Your task to perform on an android device: turn on location history Image 0: 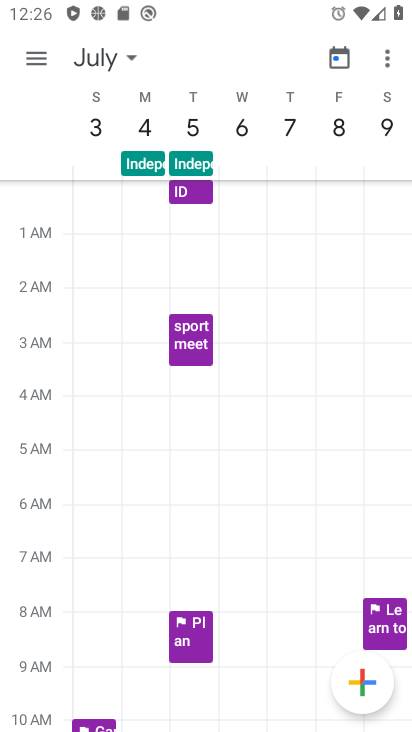
Step 0: press home button
Your task to perform on an android device: turn on location history Image 1: 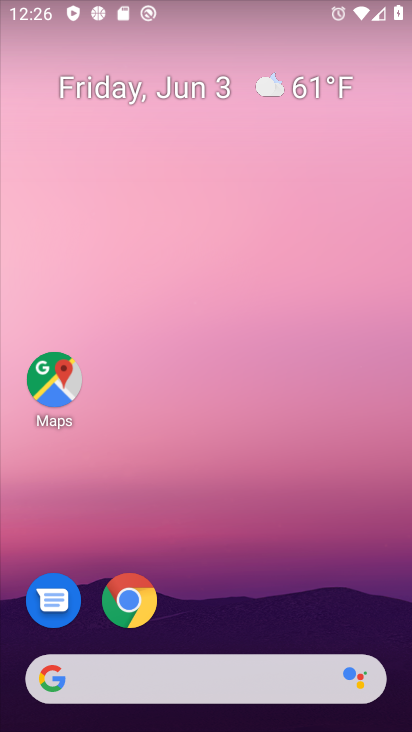
Step 1: drag from (300, 565) to (251, 180)
Your task to perform on an android device: turn on location history Image 2: 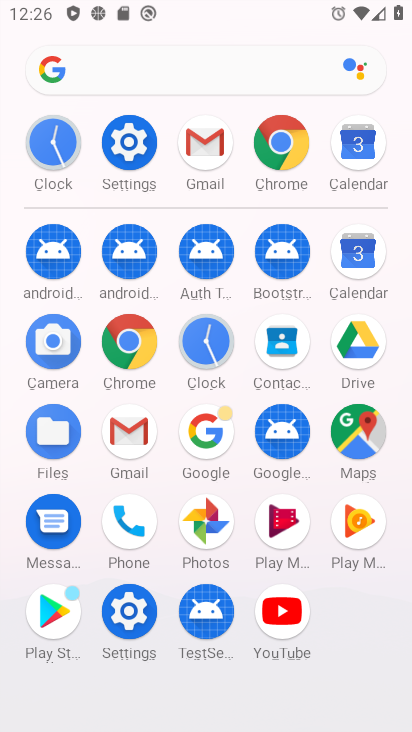
Step 2: click (124, 136)
Your task to perform on an android device: turn on location history Image 3: 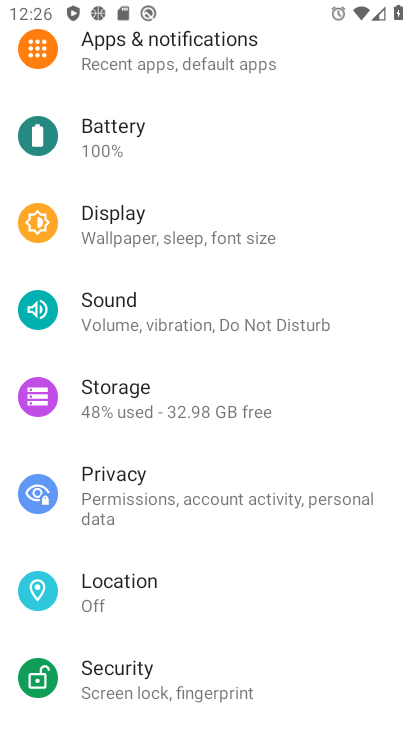
Step 3: drag from (262, 182) to (310, 159)
Your task to perform on an android device: turn on location history Image 4: 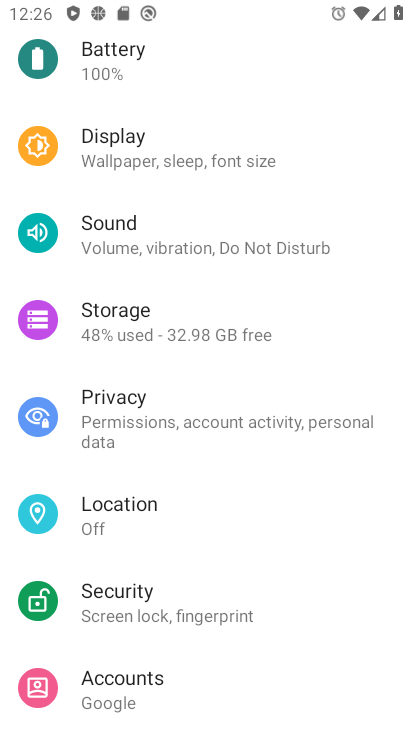
Step 4: click (136, 502)
Your task to perform on an android device: turn on location history Image 5: 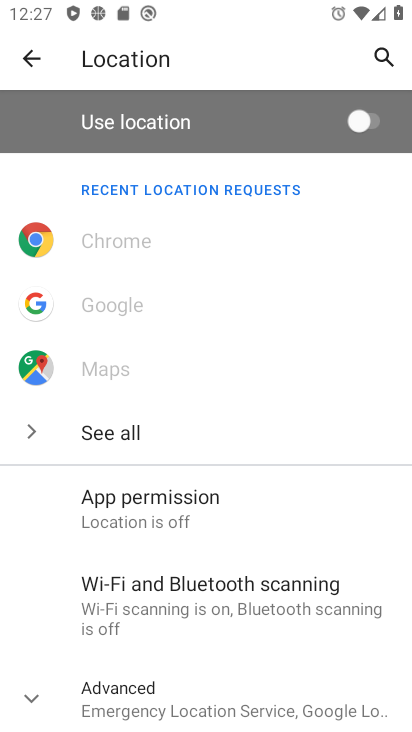
Step 5: click (134, 697)
Your task to perform on an android device: turn on location history Image 6: 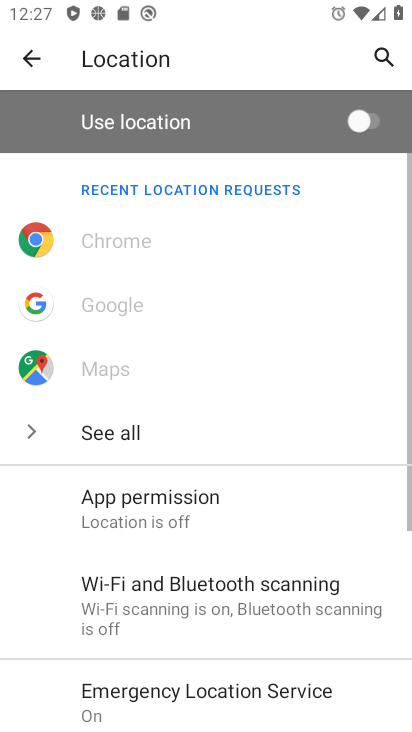
Step 6: drag from (284, 677) to (278, 202)
Your task to perform on an android device: turn on location history Image 7: 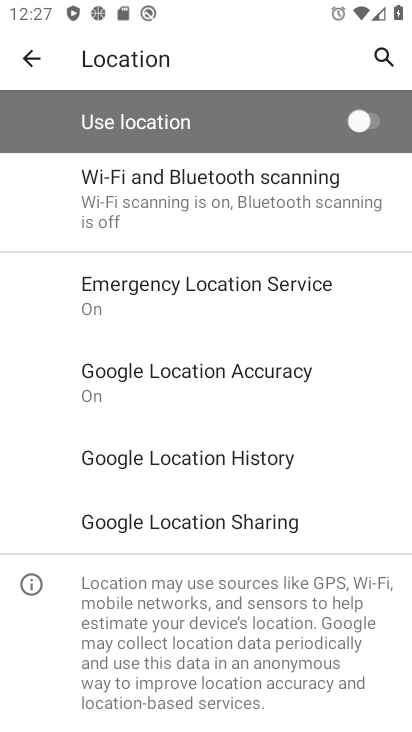
Step 7: click (246, 456)
Your task to perform on an android device: turn on location history Image 8: 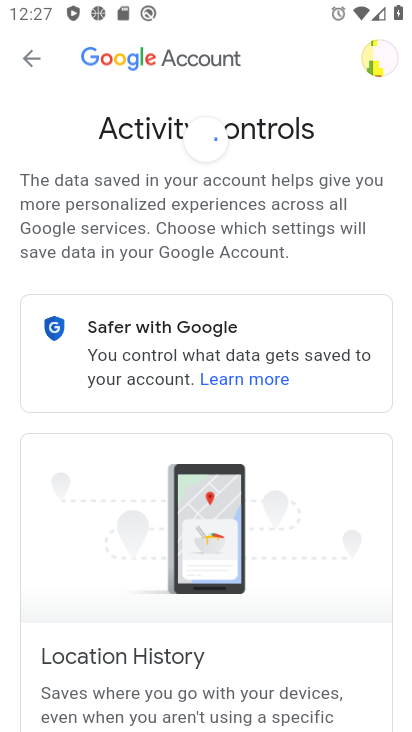
Step 8: task complete